Your task to perform on an android device: open app "Speedtest by Ookla" Image 0: 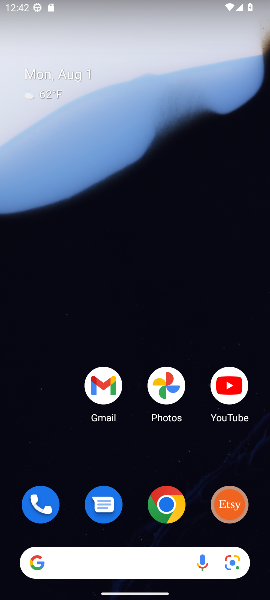
Step 0: drag from (184, 574) to (146, 190)
Your task to perform on an android device: open app "Speedtest by Ookla" Image 1: 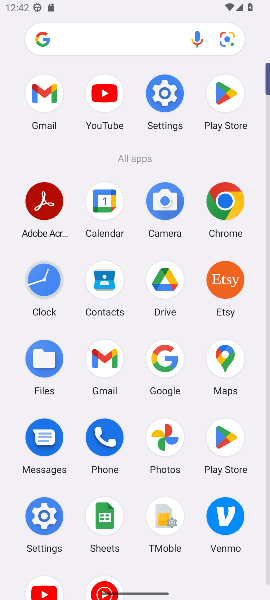
Step 1: click (226, 82)
Your task to perform on an android device: open app "Speedtest by Ookla" Image 2: 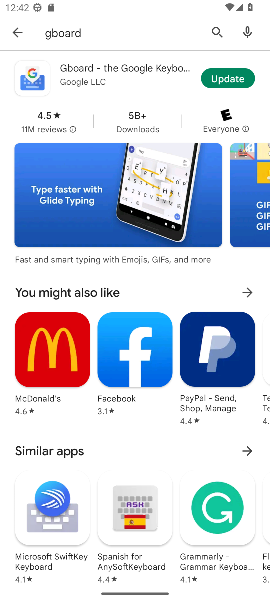
Step 2: click (215, 29)
Your task to perform on an android device: open app "Speedtest by Ookla" Image 3: 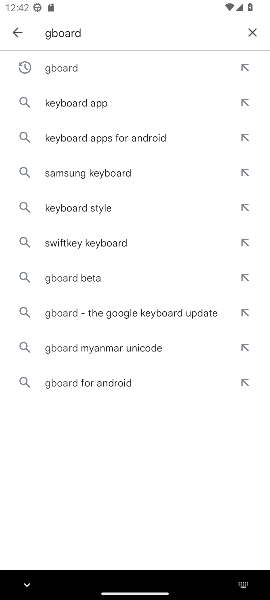
Step 3: click (254, 28)
Your task to perform on an android device: open app "Speedtest by Ookla" Image 4: 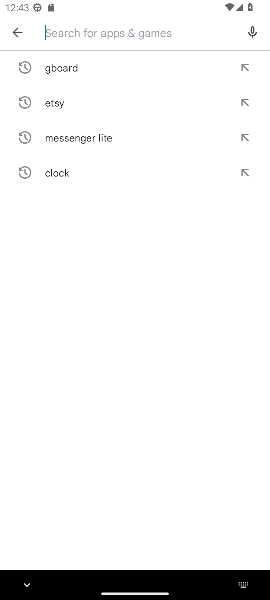
Step 4: type "speedtest by ookla"
Your task to perform on an android device: open app "Speedtest by Ookla" Image 5: 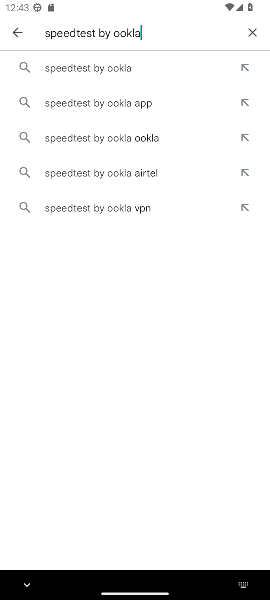
Step 5: click (139, 61)
Your task to perform on an android device: open app "Speedtest by Ookla" Image 6: 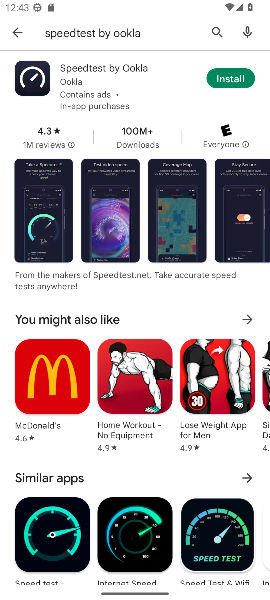
Step 6: task complete